Your task to perform on an android device: Open a new window in the chrome app Image 0: 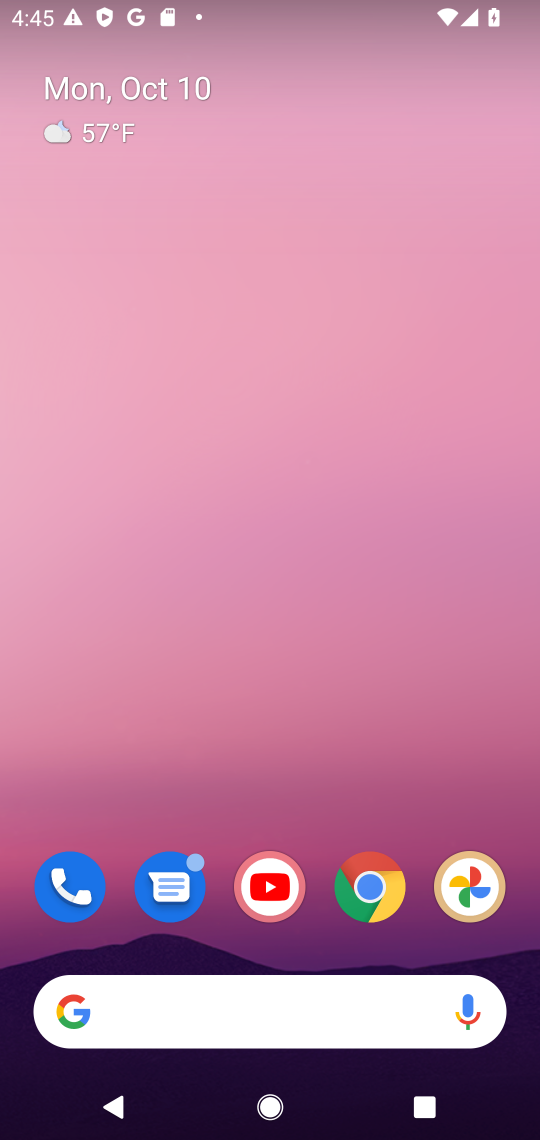
Step 0: click (365, 901)
Your task to perform on an android device: Open a new window in the chrome app Image 1: 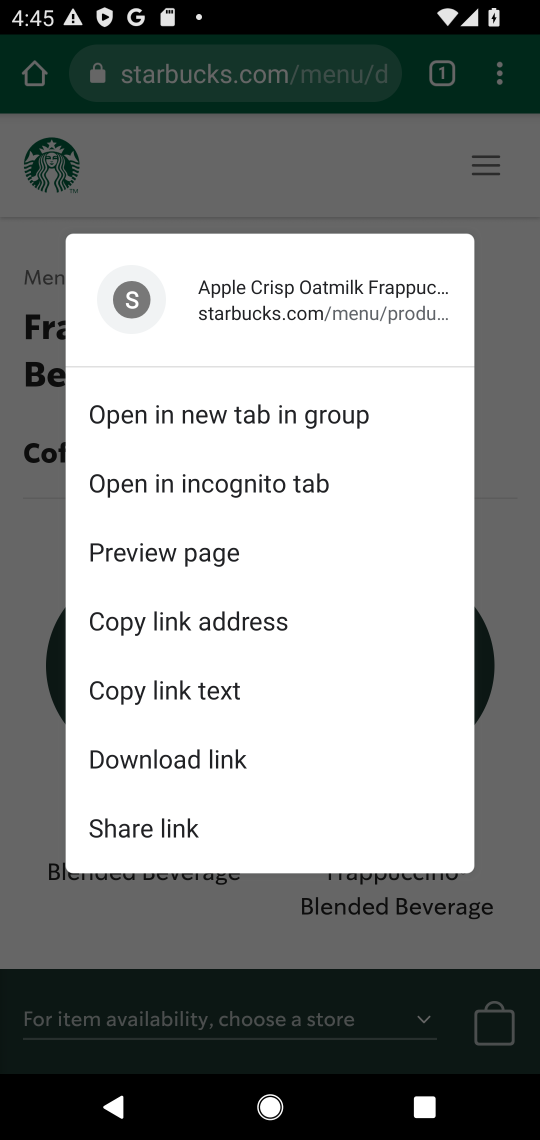
Step 1: click (292, 415)
Your task to perform on an android device: Open a new window in the chrome app Image 2: 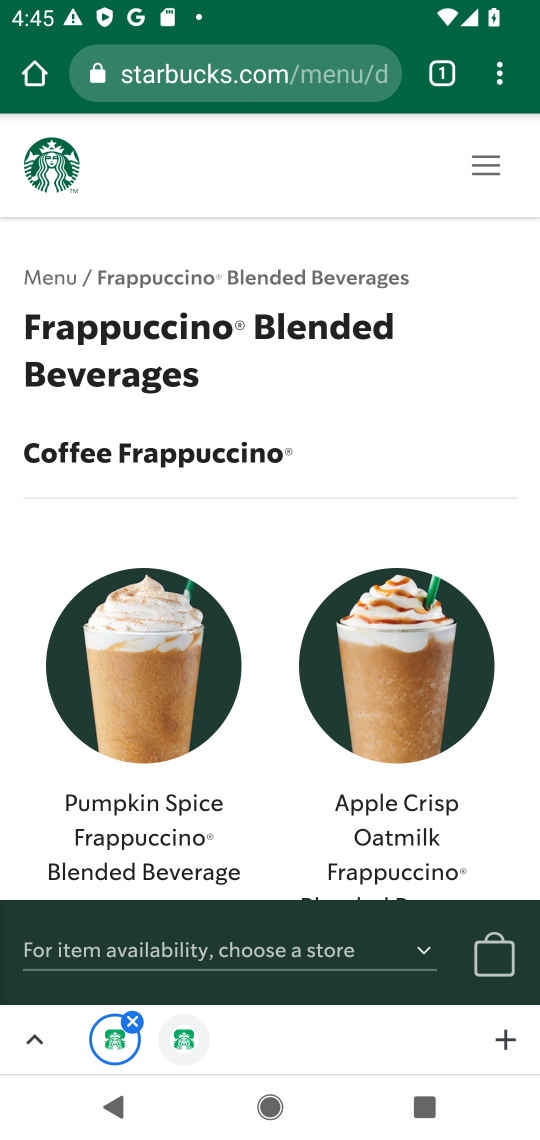
Step 2: click (500, 88)
Your task to perform on an android device: Open a new window in the chrome app Image 3: 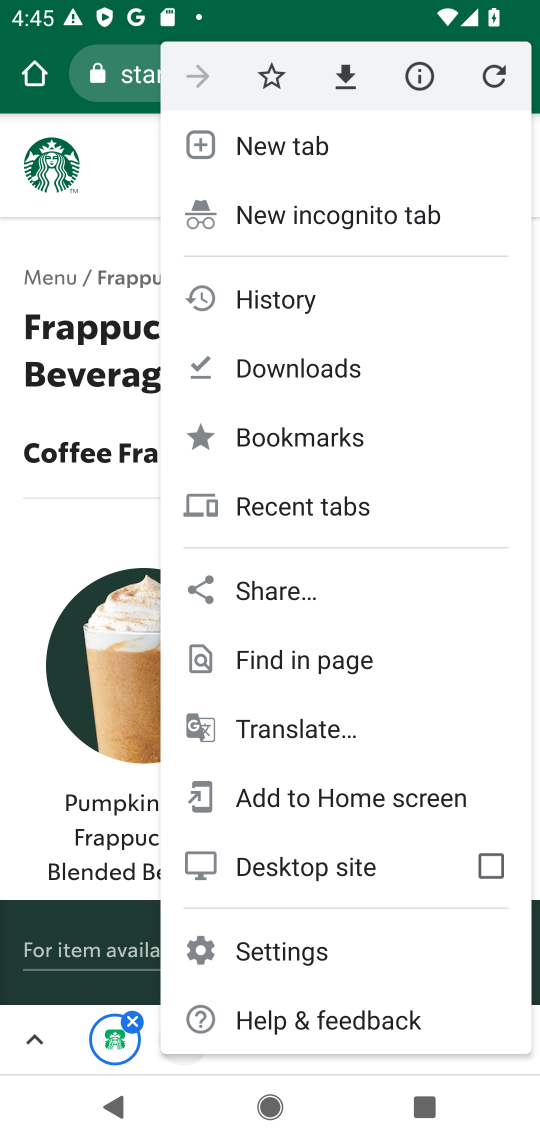
Step 3: click (236, 146)
Your task to perform on an android device: Open a new window in the chrome app Image 4: 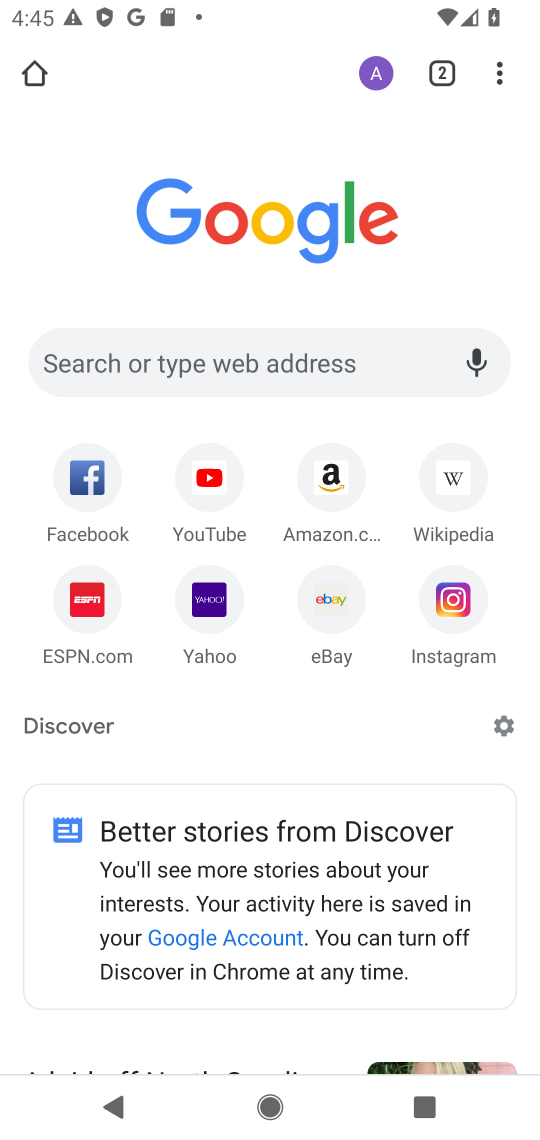
Step 4: task complete